Your task to perform on an android device: change timer sound Image 0: 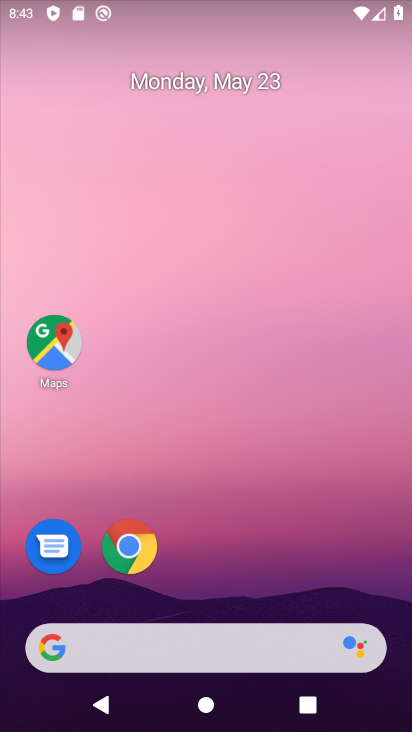
Step 0: click (343, 187)
Your task to perform on an android device: change timer sound Image 1: 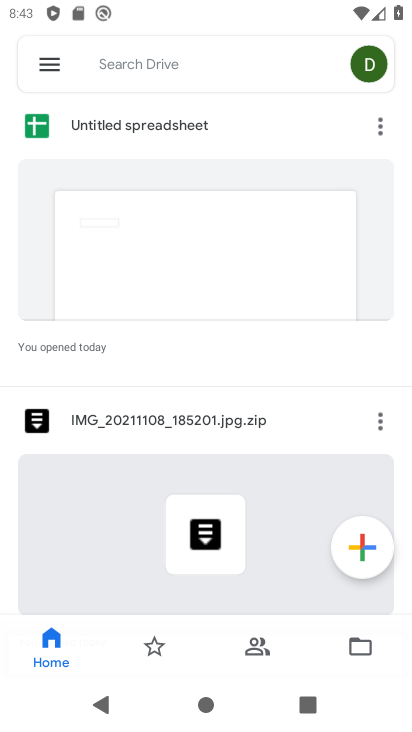
Step 1: press home button
Your task to perform on an android device: change timer sound Image 2: 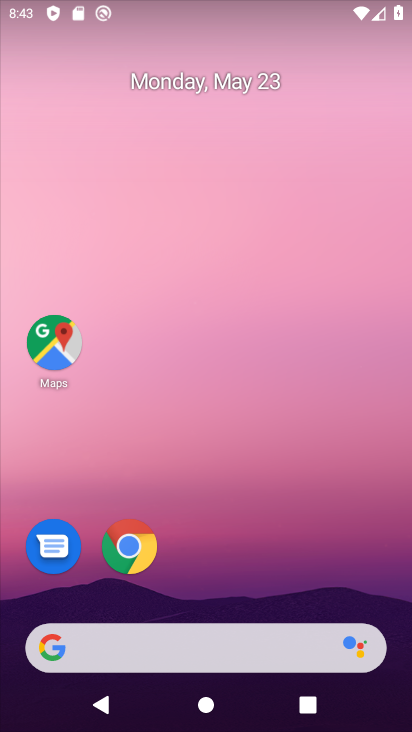
Step 2: drag from (307, 544) to (311, 179)
Your task to perform on an android device: change timer sound Image 3: 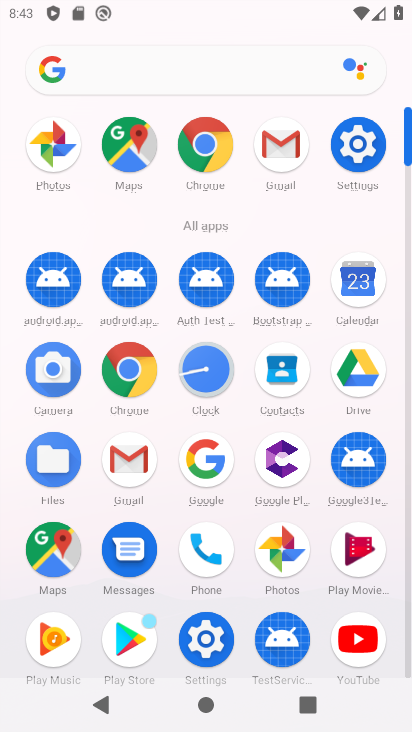
Step 3: click (214, 376)
Your task to perform on an android device: change timer sound Image 4: 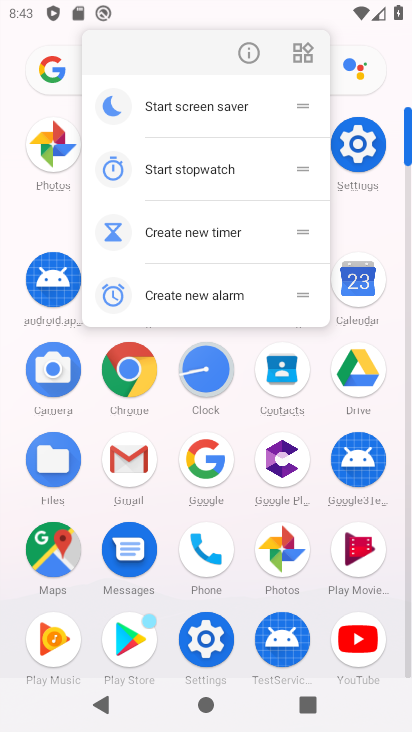
Step 4: click (214, 376)
Your task to perform on an android device: change timer sound Image 5: 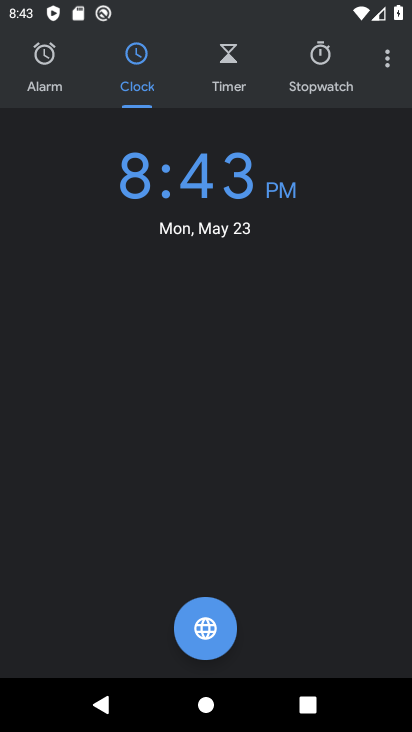
Step 5: click (391, 68)
Your task to perform on an android device: change timer sound Image 6: 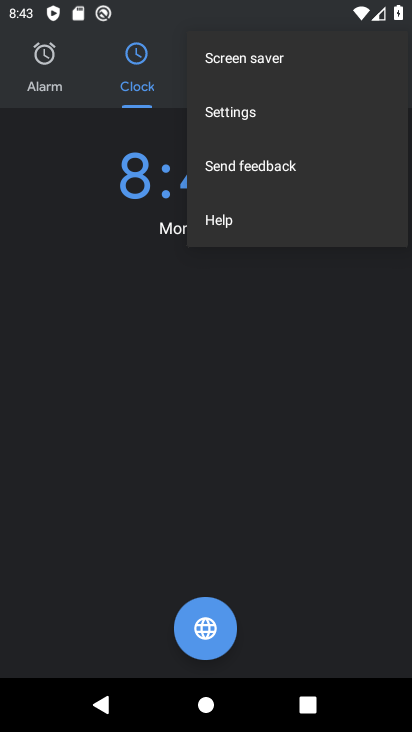
Step 6: click (248, 108)
Your task to perform on an android device: change timer sound Image 7: 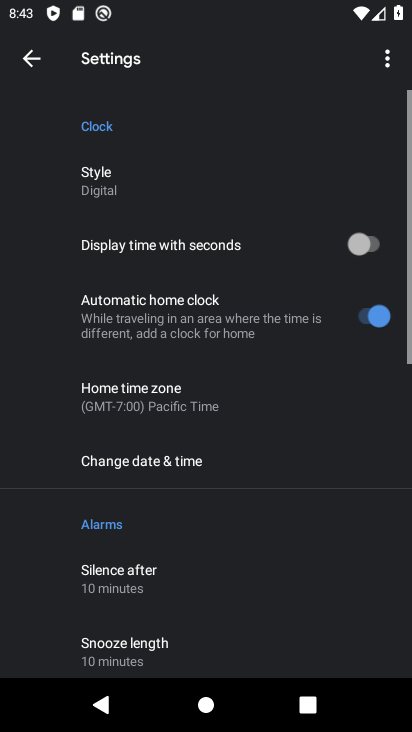
Step 7: drag from (279, 559) to (364, 147)
Your task to perform on an android device: change timer sound Image 8: 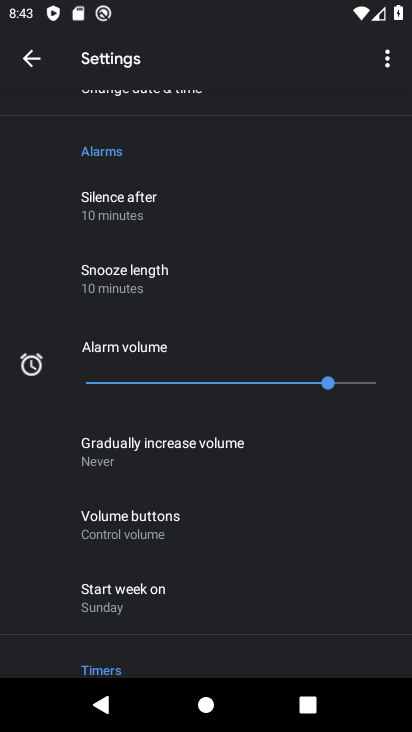
Step 8: drag from (265, 613) to (350, 283)
Your task to perform on an android device: change timer sound Image 9: 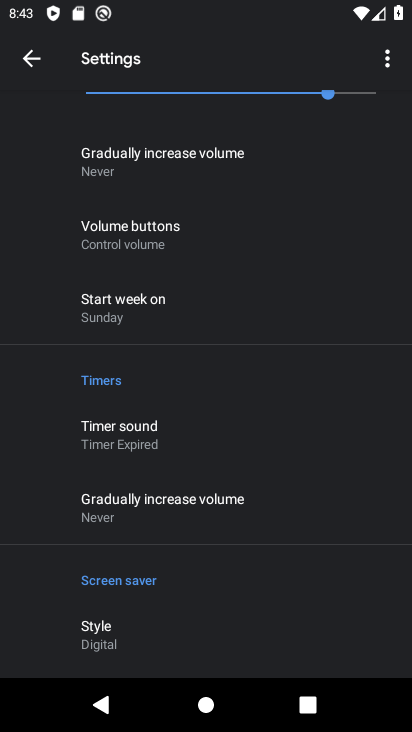
Step 9: click (124, 433)
Your task to perform on an android device: change timer sound Image 10: 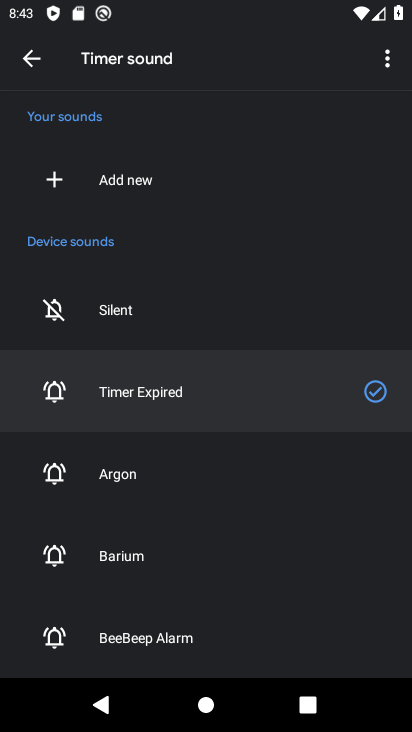
Step 10: click (133, 471)
Your task to perform on an android device: change timer sound Image 11: 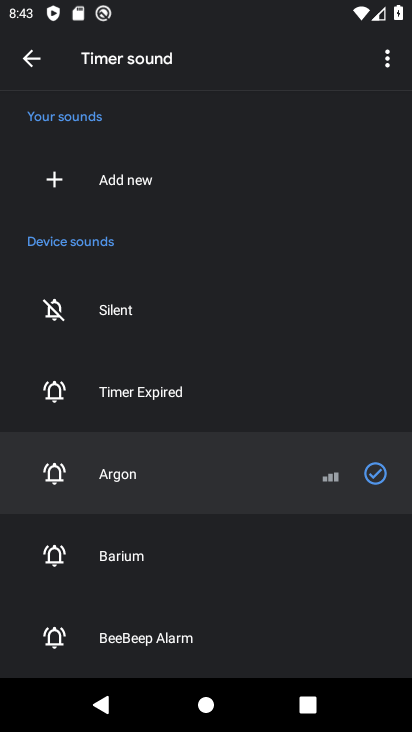
Step 11: task complete